Your task to perform on an android device: change the clock display to digital Image 0: 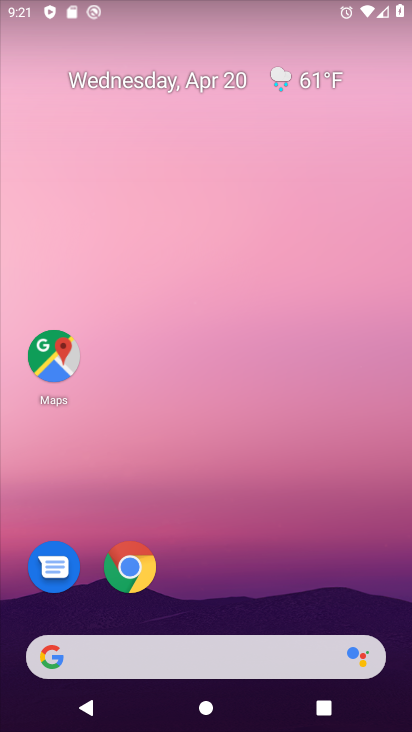
Step 0: drag from (206, 586) to (213, 138)
Your task to perform on an android device: change the clock display to digital Image 1: 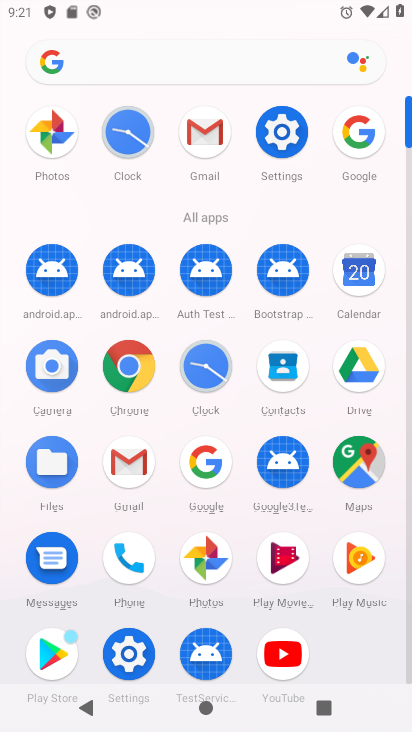
Step 1: click (119, 142)
Your task to perform on an android device: change the clock display to digital Image 2: 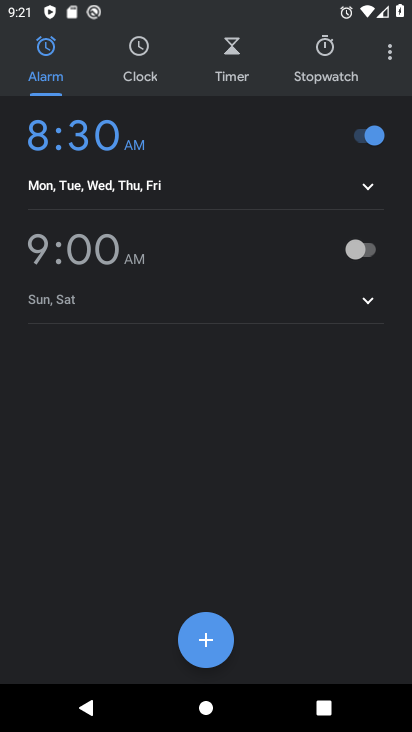
Step 2: click (387, 59)
Your task to perform on an android device: change the clock display to digital Image 3: 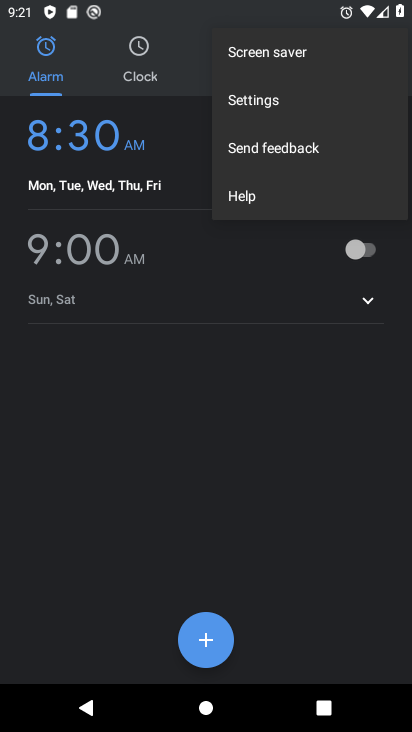
Step 3: click (317, 101)
Your task to perform on an android device: change the clock display to digital Image 4: 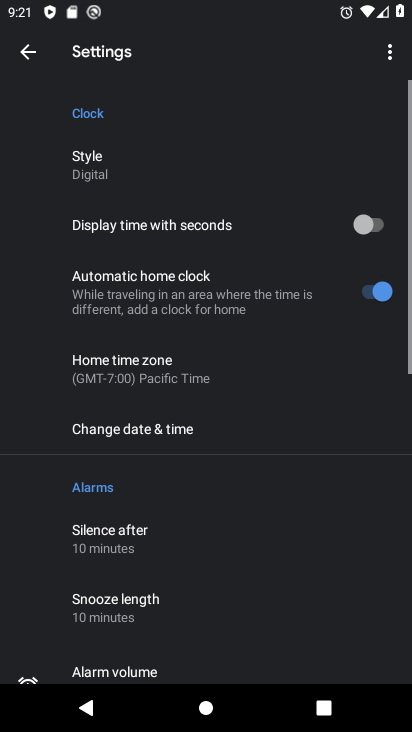
Step 4: click (128, 167)
Your task to perform on an android device: change the clock display to digital Image 5: 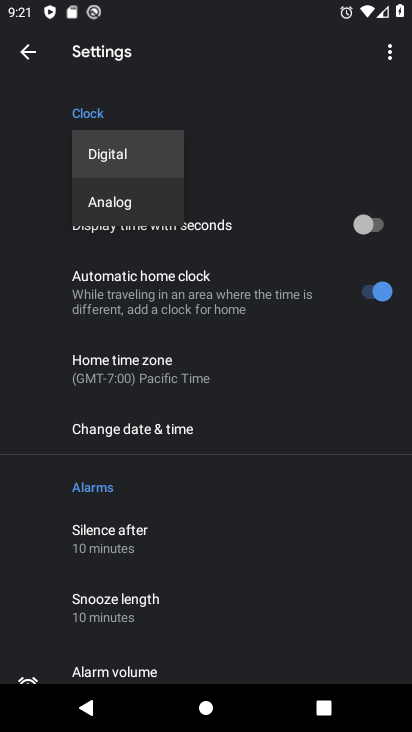
Step 5: task complete